Your task to perform on an android device: turn off picture-in-picture Image 0: 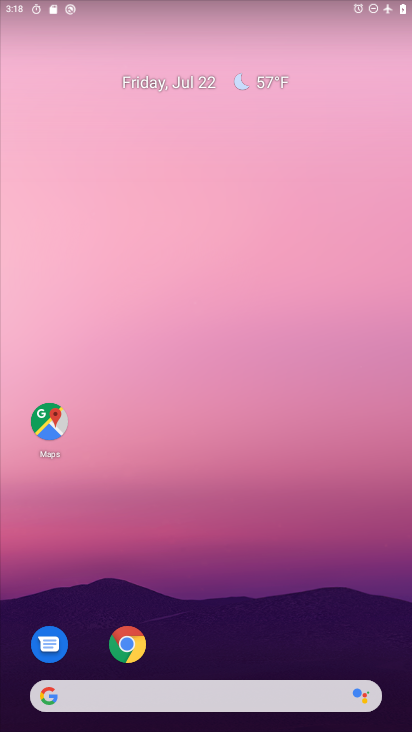
Step 0: click (124, 650)
Your task to perform on an android device: turn off picture-in-picture Image 1: 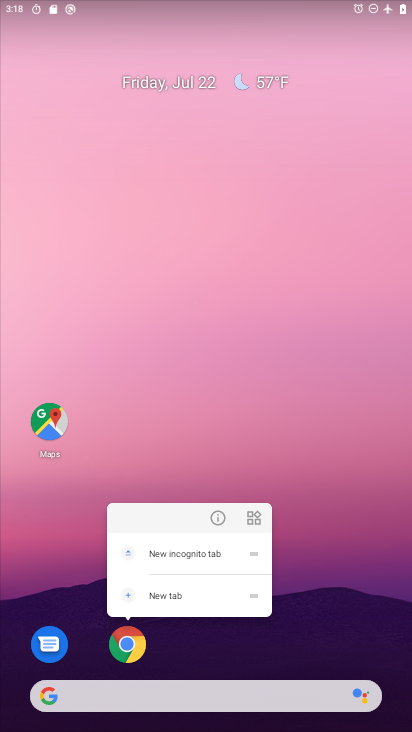
Step 1: click (225, 518)
Your task to perform on an android device: turn off picture-in-picture Image 2: 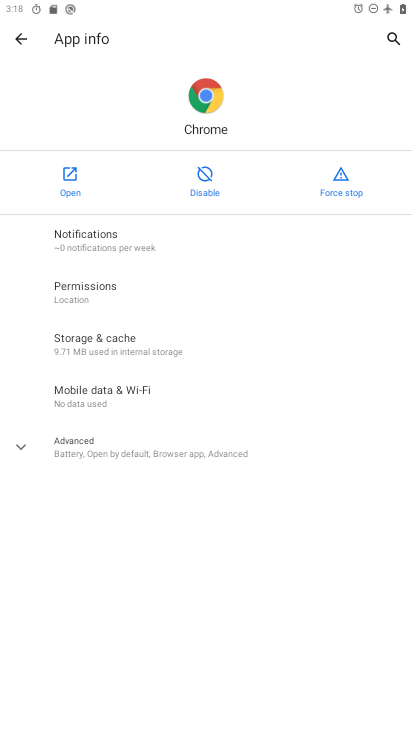
Step 2: click (104, 448)
Your task to perform on an android device: turn off picture-in-picture Image 3: 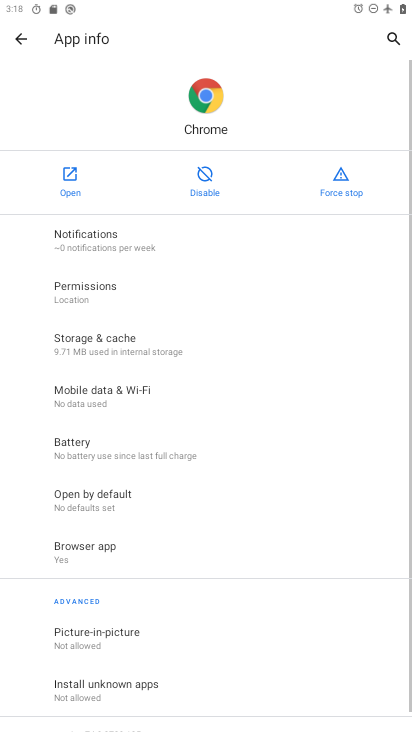
Step 3: drag from (197, 656) to (246, 458)
Your task to perform on an android device: turn off picture-in-picture Image 4: 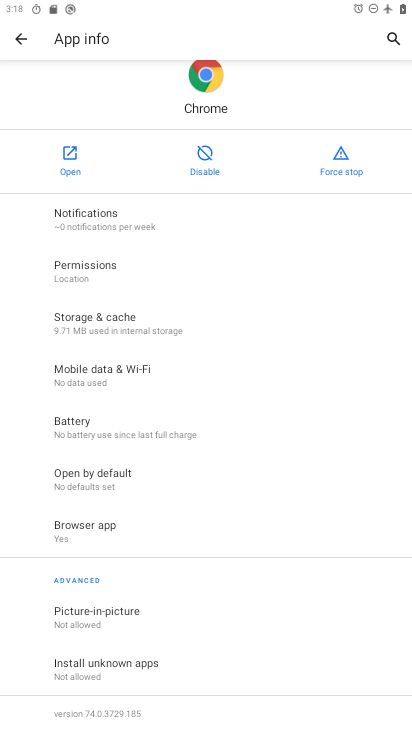
Step 4: click (121, 599)
Your task to perform on an android device: turn off picture-in-picture Image 5: 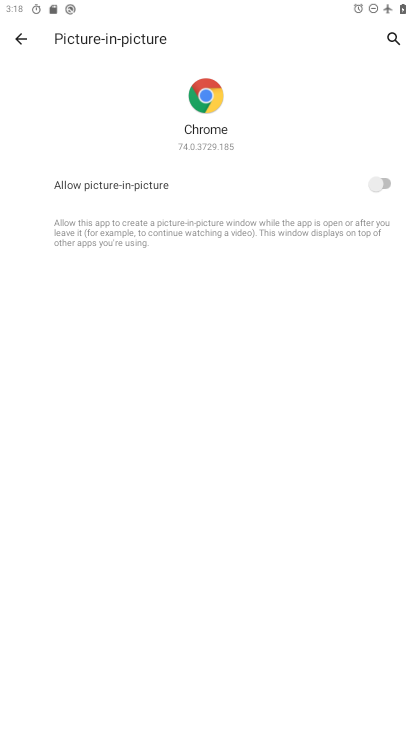
Step 5: task complete